Your task to perform on an android device: turn off airplane mode Image 0: 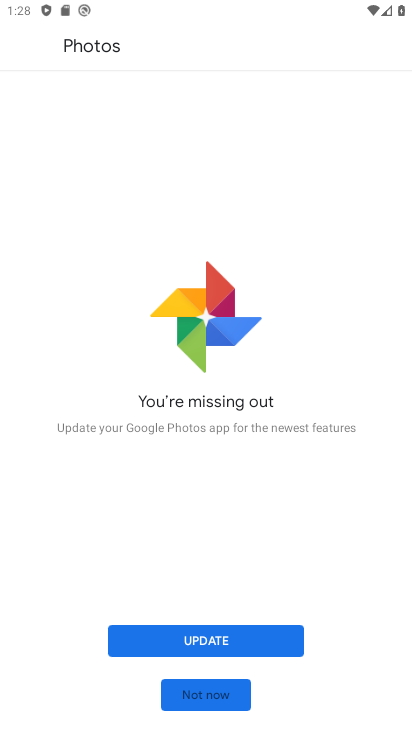
Step 0: press home button
Your task to perform on an android device: turn off airplane mode Image 1: 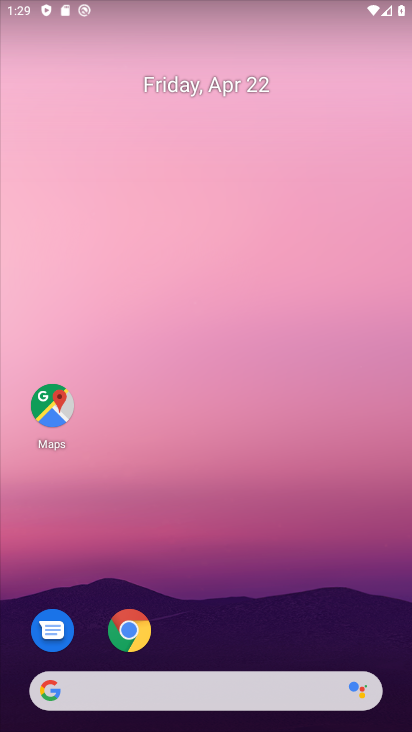
Step 1: drag from (200, 506) to (216, 55)
Your task to perform on an android device: turn off airplane mode Image 2: 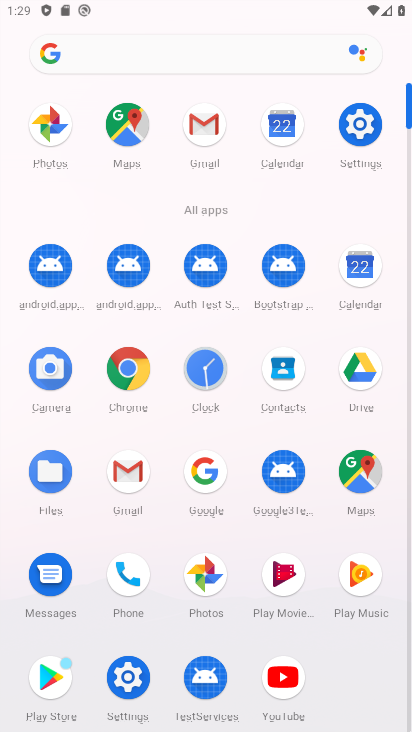
Step 2: click (367, 140)
Your task to perform on an android device: turn off airplane mode Image 3: 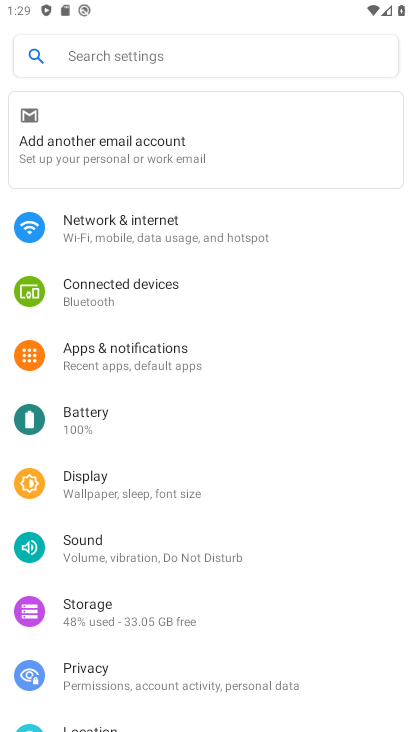
Step 3: click (138, 240)
Your task to perform on an android device: turn off airplane mode Image 4: 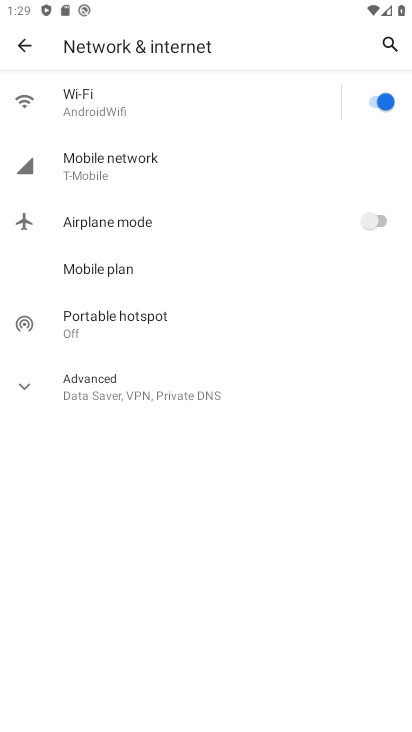
Step 4: task complete